Your task to perform on an android device: toggle airplane mode Image 0: 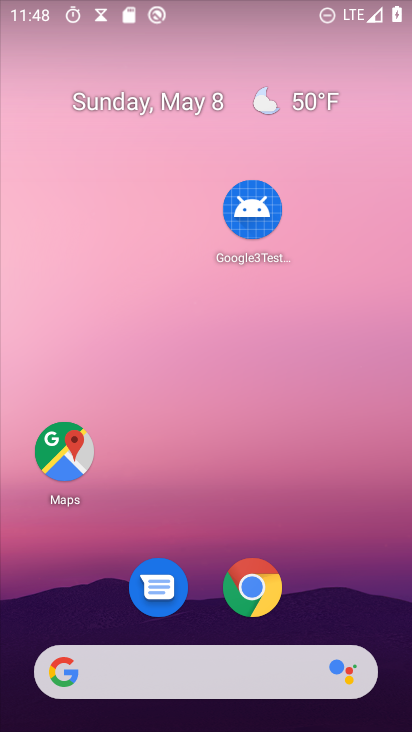
Step 0: drag from (339, 586) to (106, 98)
Your task to perform on an android device: toggle airplane mode Image 1: 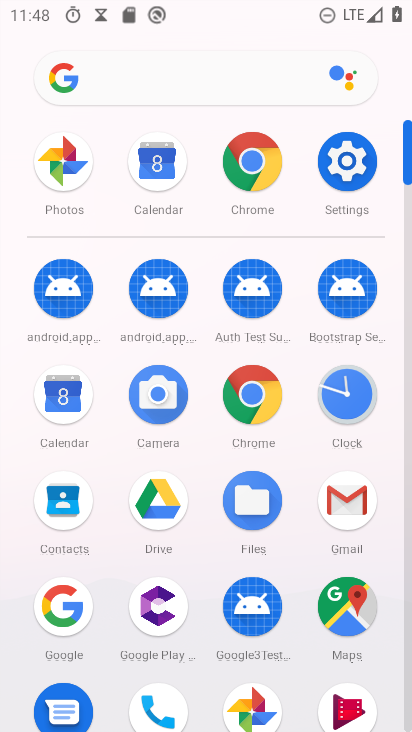
Step 1: click (352, 158)
Your task to perform on an android device: toggle airplane mode Image 2: 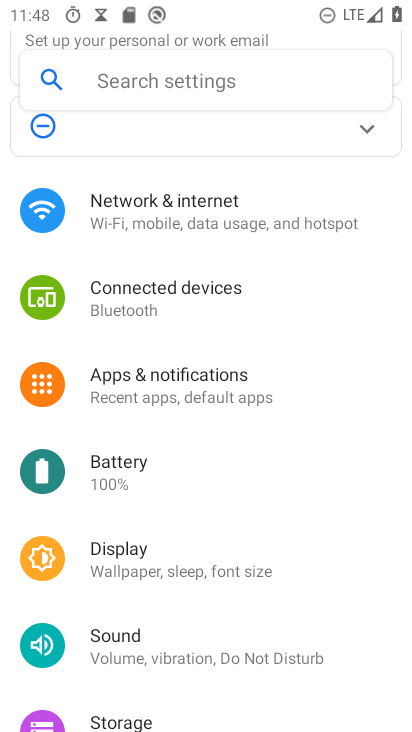
Step 2: click (221, 224)
Your task to perform on an android device: toggle airplane mode Image 3: 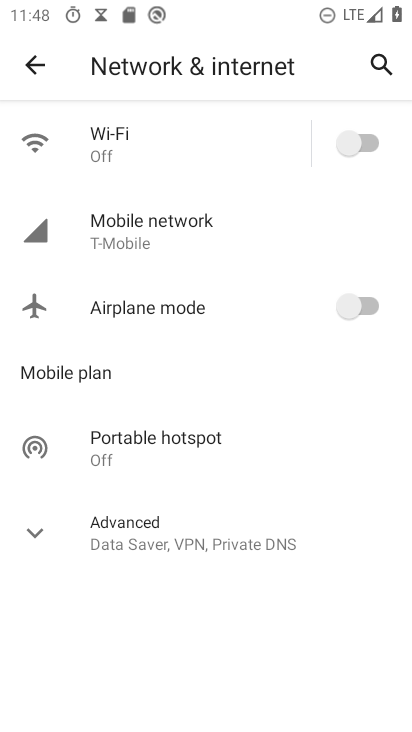
Step 3: click (358, 303)
Your task to perform on an android device: toggle airplane mode Image 4: 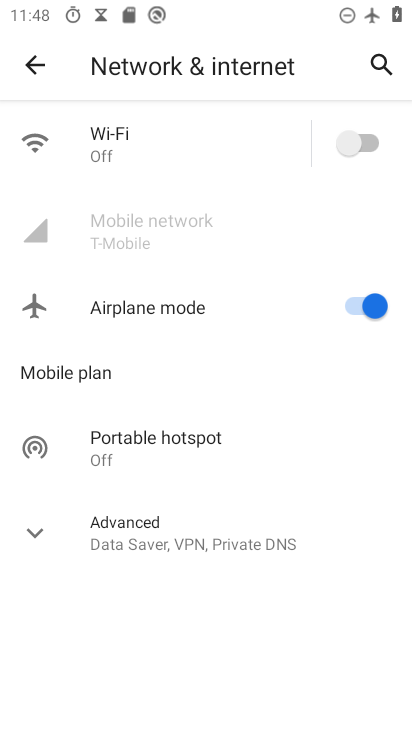
Step 4: task complete